Your task to perform on an android device: turn off location history Image 0: 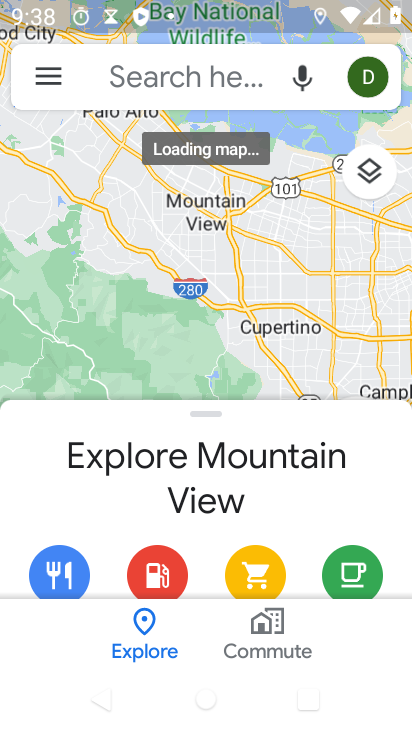
Step 0: press back button
Your task to perform on an android device: turn off location history Image 1: 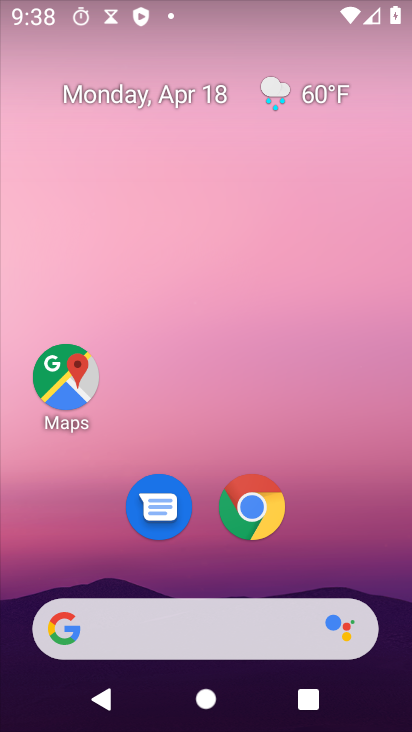
Step 1: drag from (345, 557) to (354, 59)
Your task to perform on an android device: turn off location history Image 2: 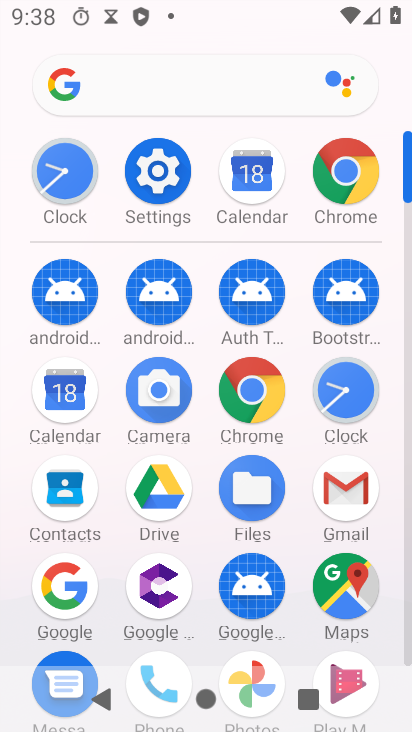
Step 2: click (173, 165)
Your task to perform on an android device: turn off location history Image 3: 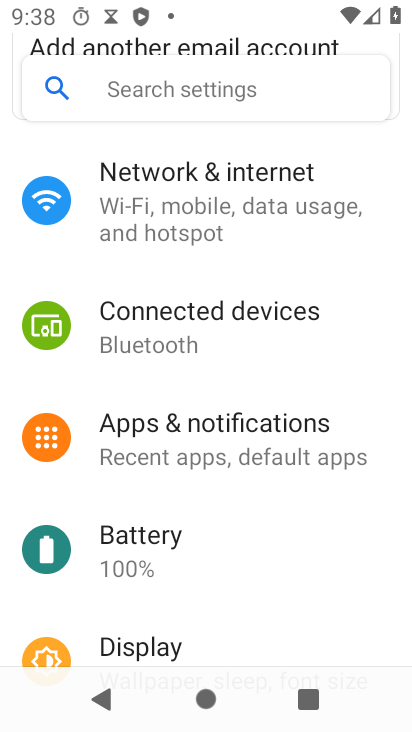
Step 3: drag from (240, 531) to (284, 433)
Your task to perform on an android device: turn off location history Image 4: 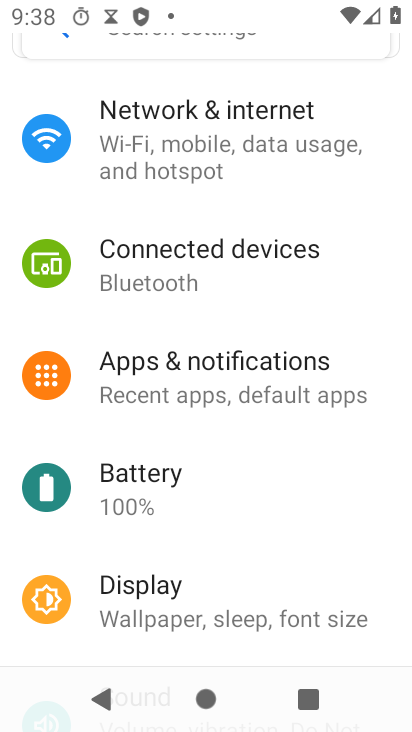
Step 4: drag from (265, 543) to (274, 461)
Your task to perform on an android device: turn off location history Image 5: 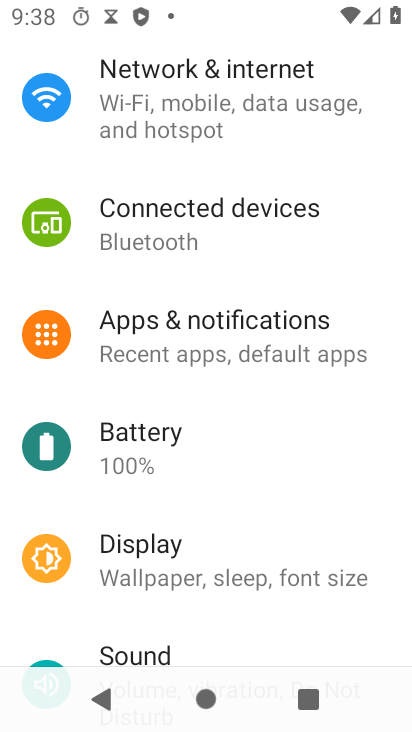
Step 5: drag from (269, 573) to (274, 509)
Your task to perform on an android device: turn off location history Image 6: 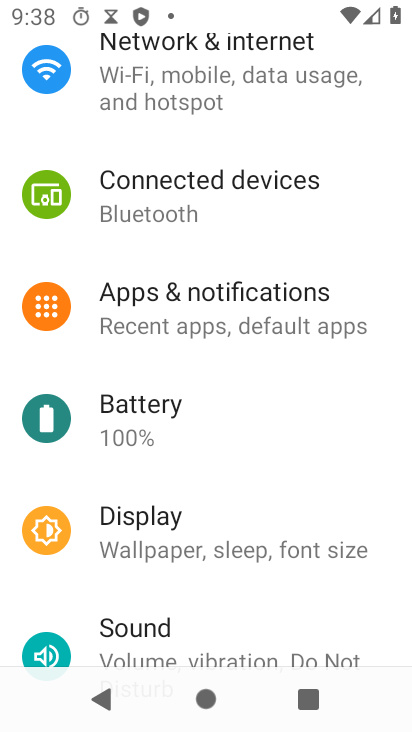
Step 6: drag from (272, 592) to (268, 514)
Your task to perform on an android device: turn off location history Image 7: 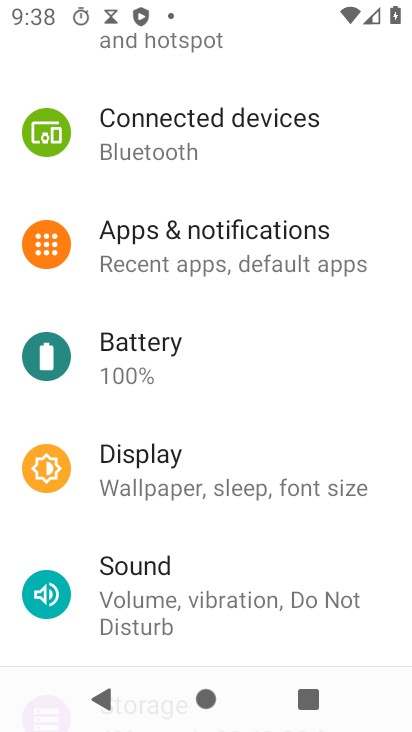
Step 7: drag from (221, 620) to (245, 505)
Your task to perform on an android device: turn off location history Image 8: 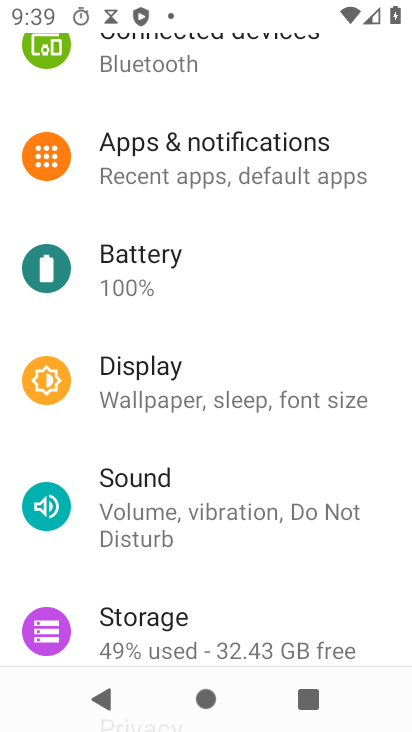
Step 8: drag from (200, 602) to (214, 516)
Your task to perform on an android device: turn off location history Image 9: 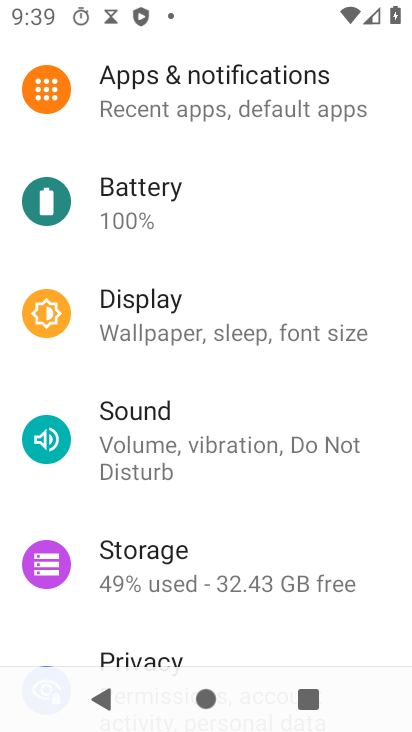
Step 9: drag from (193, 593) to (215, 494)
Your task to perform on an android device: turn off location history Image 10: 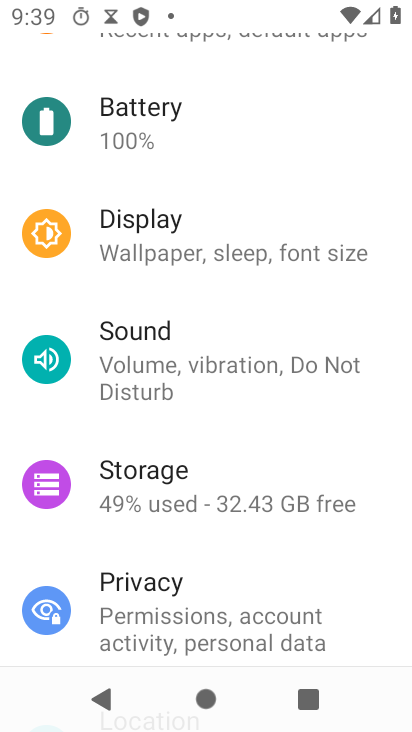
Step 10: drag from (196, 580) to (222, 470)
Your task to perform on an android device: turn off location history Image 11: 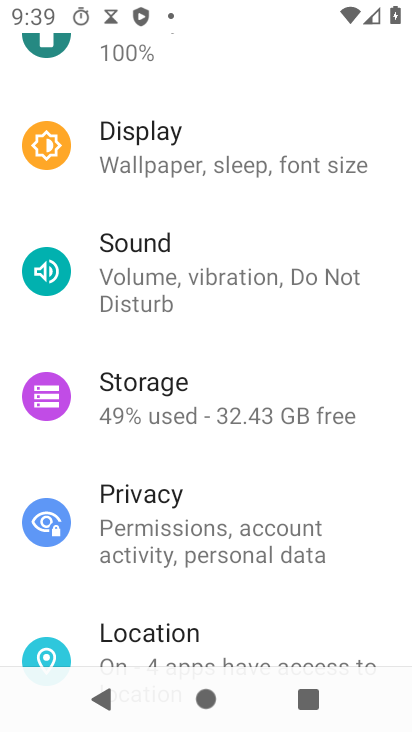
Step 11: drag from (203, 590) to (233, 497)
Your task to perform on an android device: turn off location history Image 12: 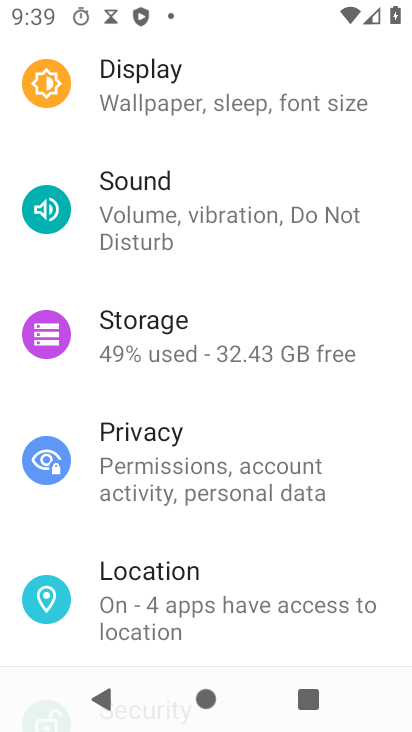
Step 12: click (230, 604)
Your task to perform on an android device: turn off location history Image 13: 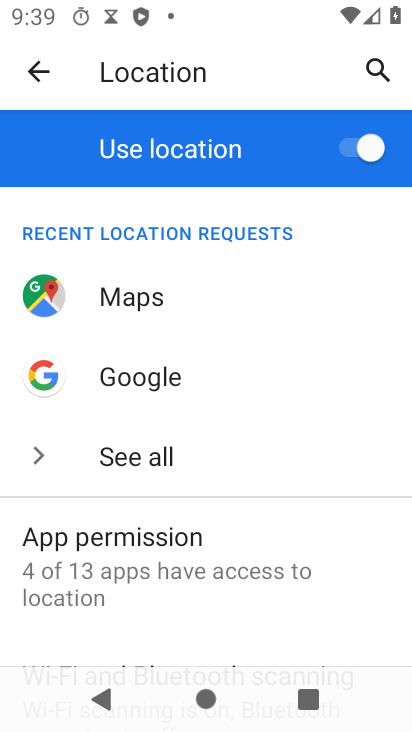
Step 13: drag from (255, 577) to (295, 444)
Your task to perform on an android device: turn off location history Image 14: 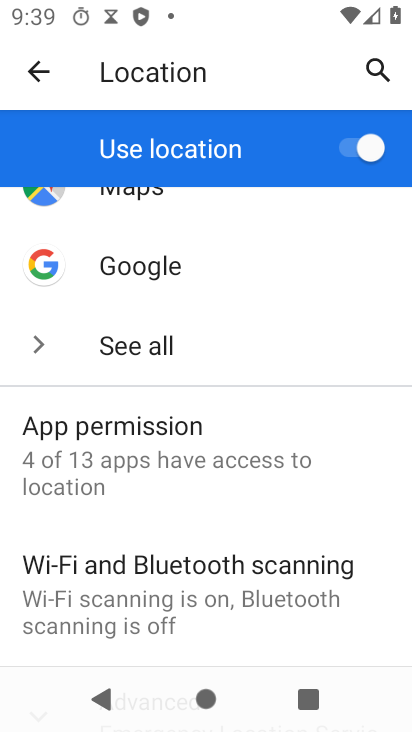
Step 14: drag from (267, 562) to (337, 389)
Your task to perform on an android device: turn off location history Image 15: 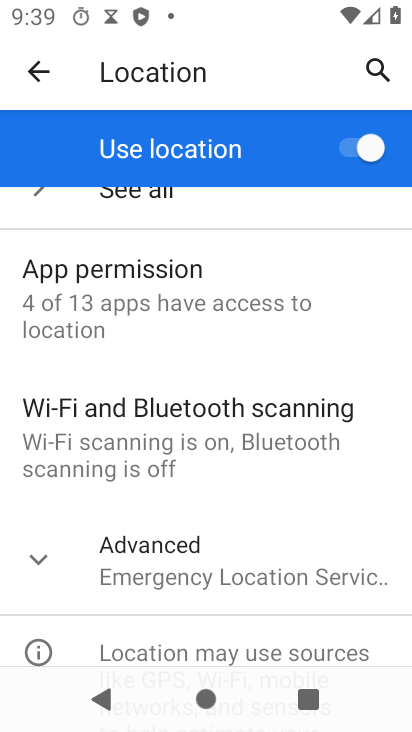
Step 15: click (226, 577)
Your task to perform on an android device: turn off location history Image 16: 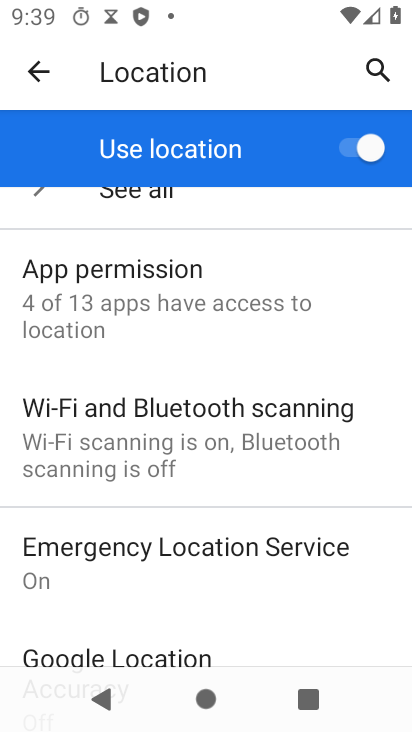
Step 16: drag from (228, 606) to (273, 498)
Your task to perform on an android device: turn off location history Image 17: 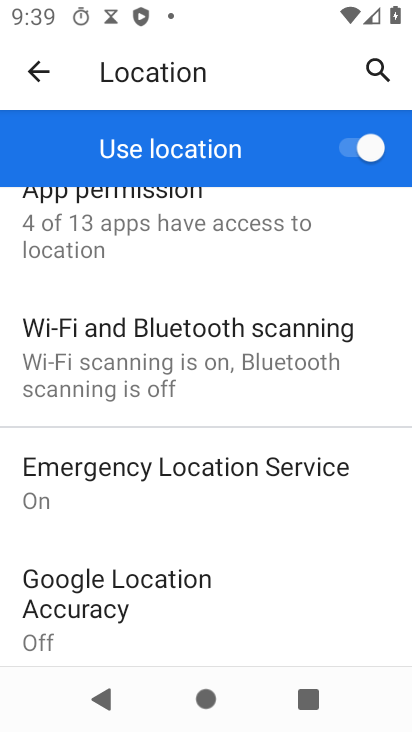
Step 17: drag from (230, 630) to (264, 542)
Your task to perform on an android device: turn off location history Image 18: 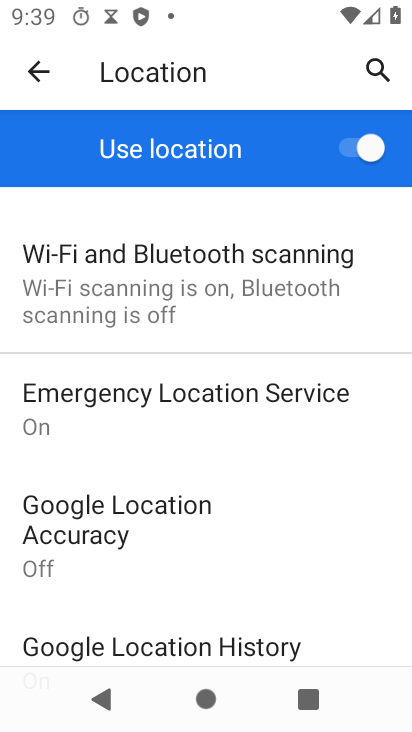
Step 18: drag from (250, 623) to (276, 521)
Your task to perform on an android device: turn off location history Image 19: 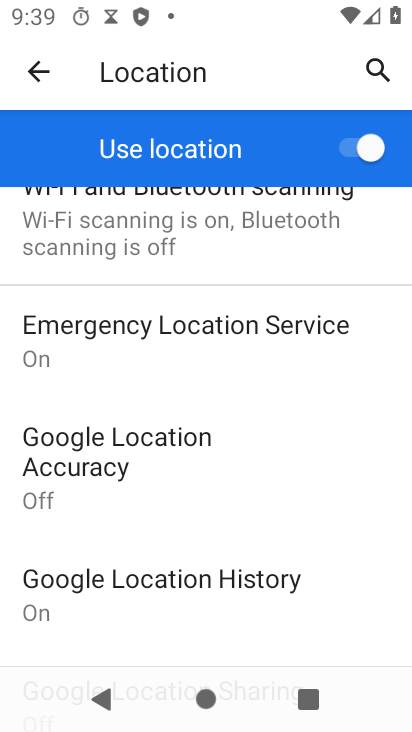
Step 19: click (245, 601)
Your task to perform on an android device: turn off location history Image 20: 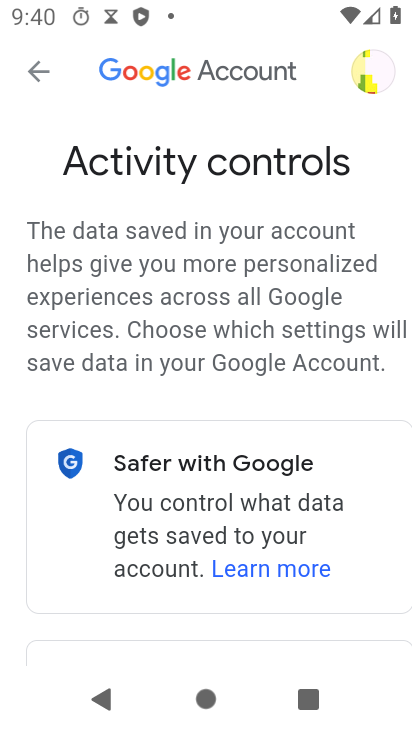
Step 20: task complete